Your task to perform on an android device: turn off location Image 0: 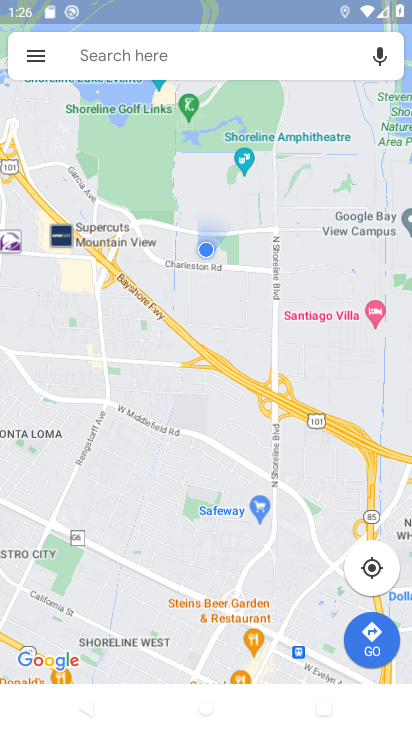
Step 0: press home button
Your task to perform on an android device: turn off location Image 1: 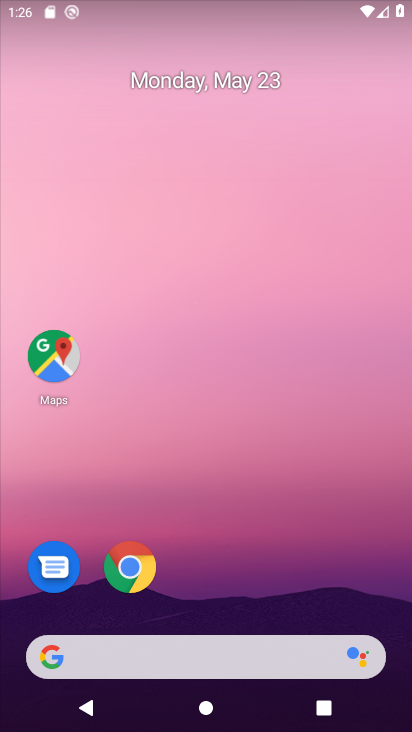
Step 1: drag from (270, 589) to (259, 133)
Your task to perform on an android device: turn off location Image 2: 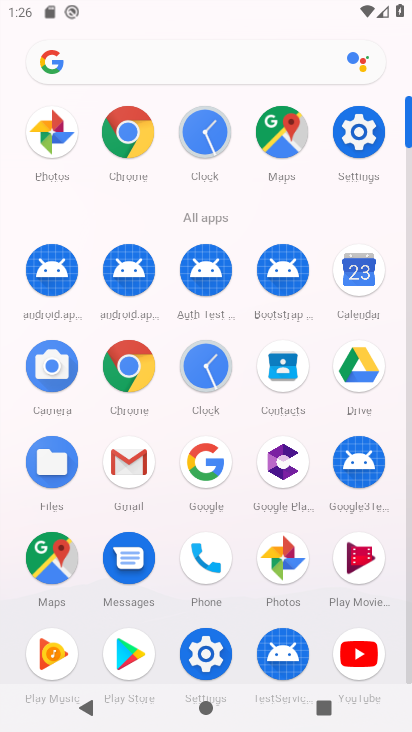
Step 2: click (375, 134)
Your task to perform on an android device: turn off location Image 3: 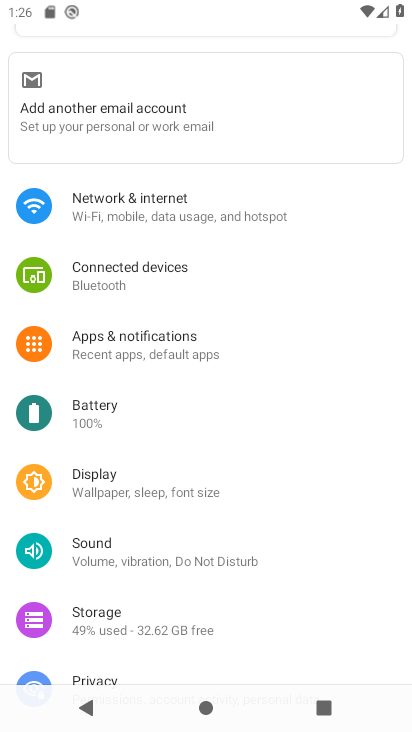
Step 3: drag from (152, 564) to (199, 318)
Your task to perform on an android device: turn off location Image 4: 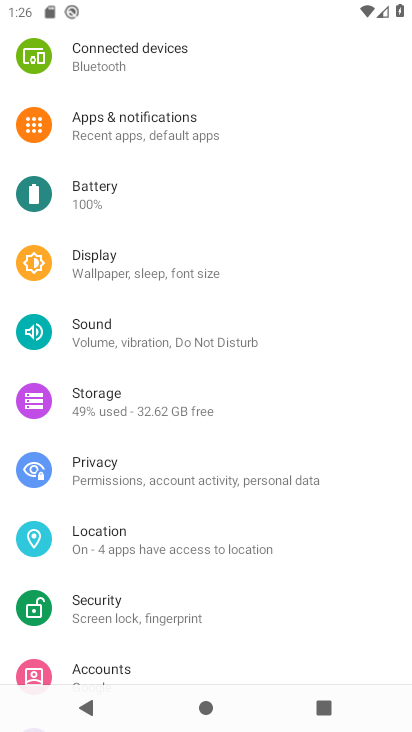
Step 4: click (138, 538)
Your task to perform on an android device: turn off location Image 5: 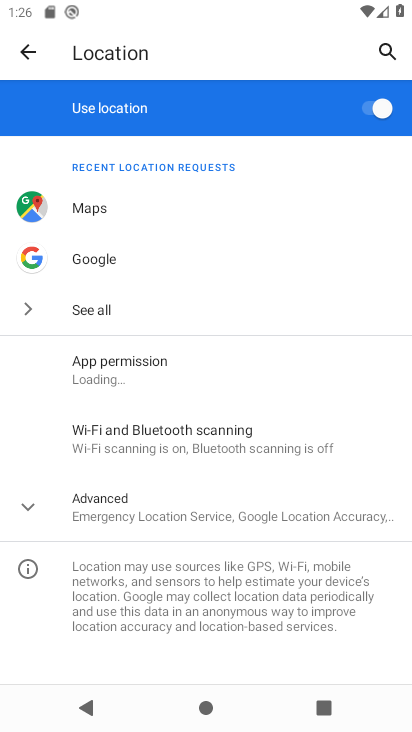
Step 5: click (388, 115)
Your task to perform on an android device: turn off location Image 6: 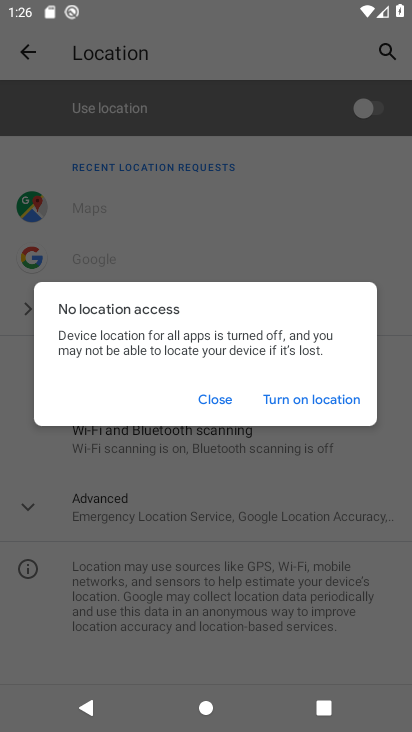
Step 6: task complete